Your task to perform on an android device: Open the web browser Image 0: 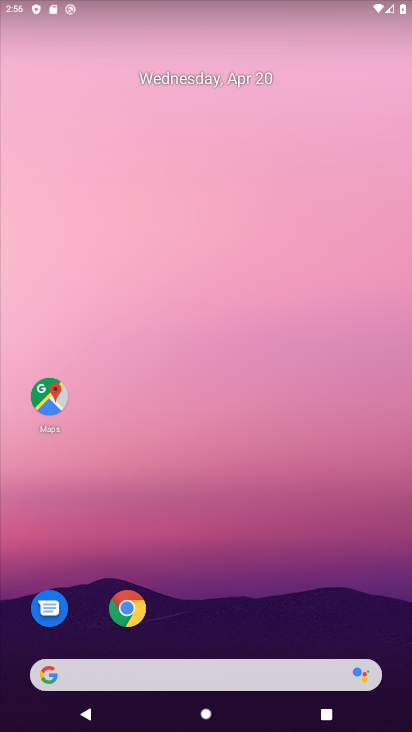
Step 0: click (223, 662)
Your task to perform on an android device: Open the web browser Image 1: 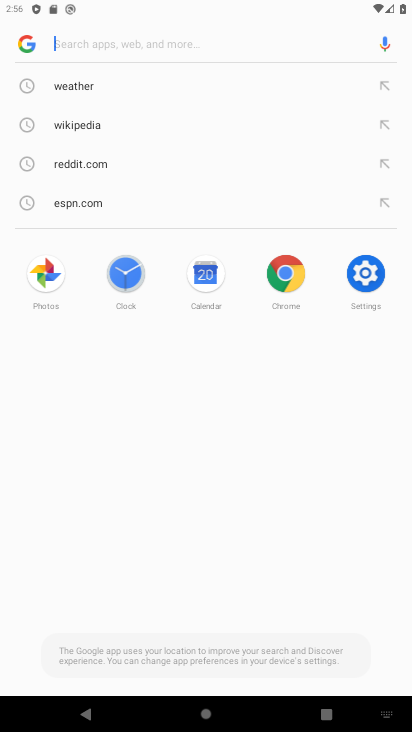
Step 1: task complete